Your task to perform on an android device: toggle location history Image 0: 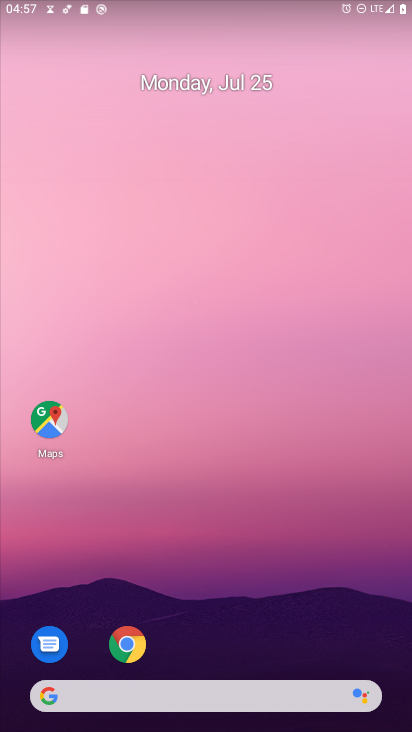
Step 0: press home button
Your task to perform on an android device: toggle location history Image 1: 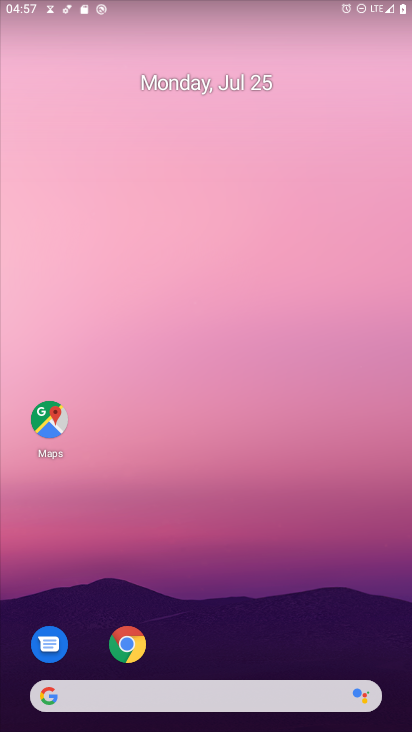
Step 1: drag from (315, 605) to (260, 62)
Your task to perform on an android device: toggle location history Image 2: 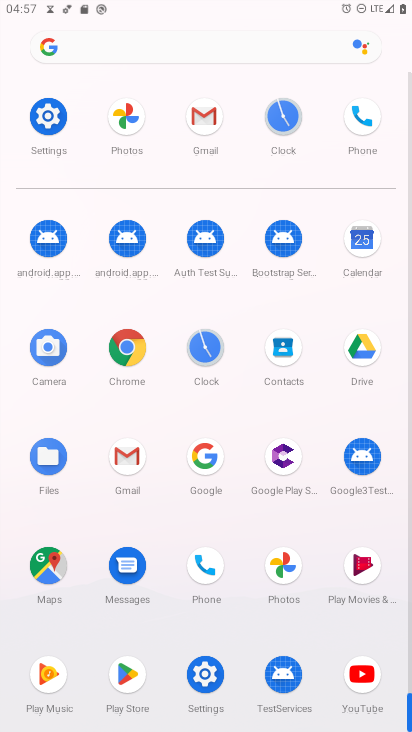
Step 2: click (52, 111)
Your task to perform on an android device: toggle location history Image 3: 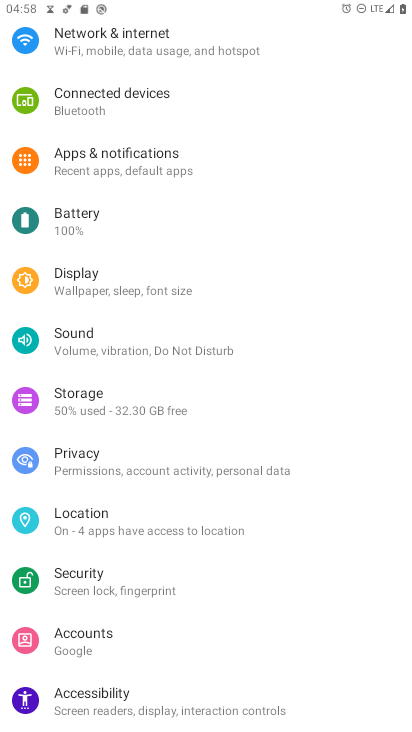
Step 3: click (169, 525)
Your task to perform on an android device: toggle location history Image 4: 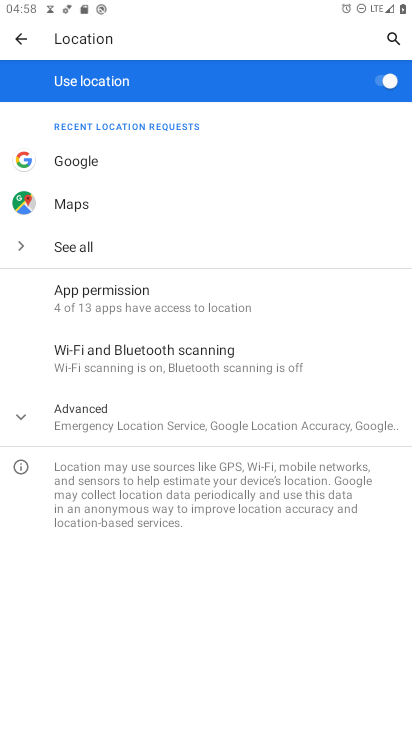
Step 4: click (20, 422)
Your task to perform on an android device: toggle location history Image 5: 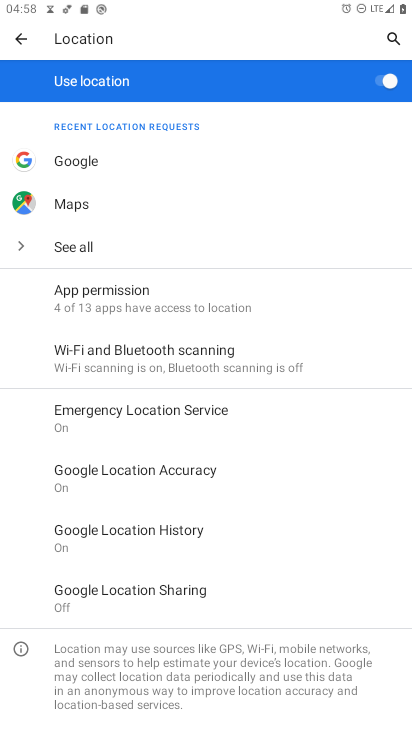
Step 5: click (168, 540)
Your task to perform on an android device: toggle location history Image 6: 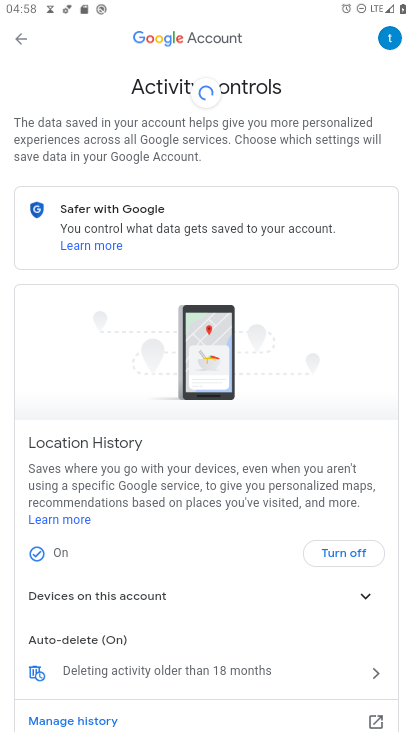
Step 6: click (356, 551)
Your task to perform on an android device: toggle location history Image 7: 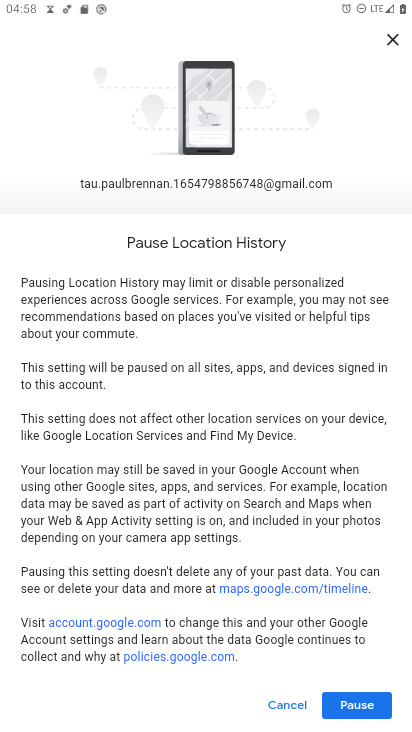
Step 7: click (367, 700)
Your task to perform on an android device: toggle location history Image 8: 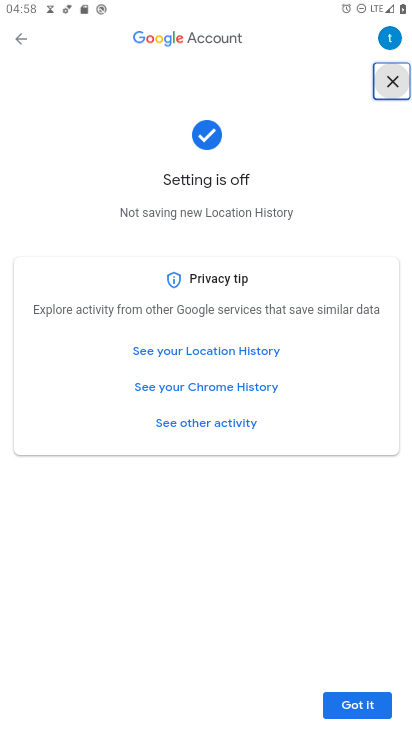
Step 8: click (372, 699)
Your task to perform on an android device: toggle location history Image 9: 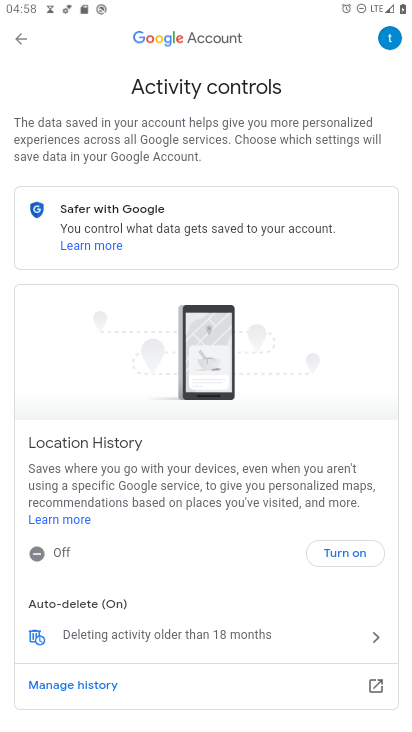
Step 9: task complete